Your task to perform on an android device: turn pop-ups on in chrome Image 0: 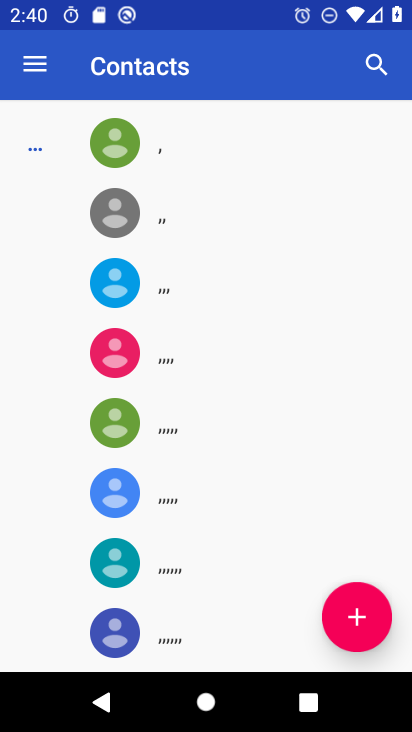
Step 0: drag from (240, 631) to (255, 452)
Your task to perform on an android device: turn pop-ups on in chrome Image 1: 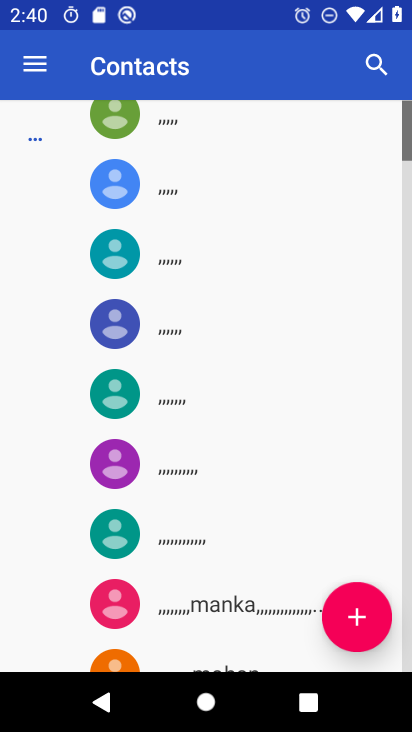
Step 1: press home button
Your task to perform on an android device: turn pop-ups on in chrome Image 2: 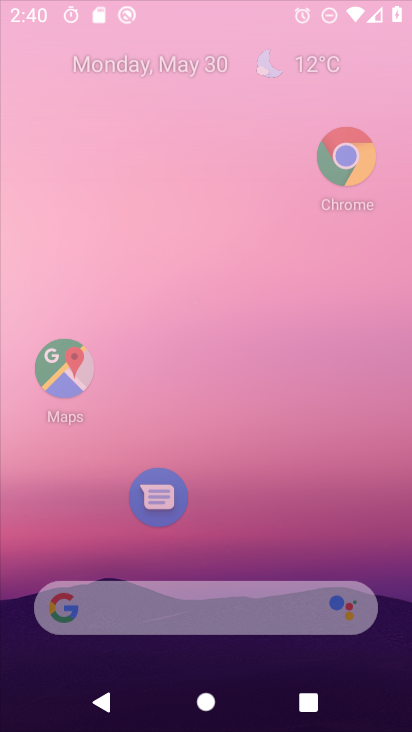
Step 2: drag from (226, 534) to (235, 334)
Your task to perform on an android device: turn pop-ups on in chrome Image 3: 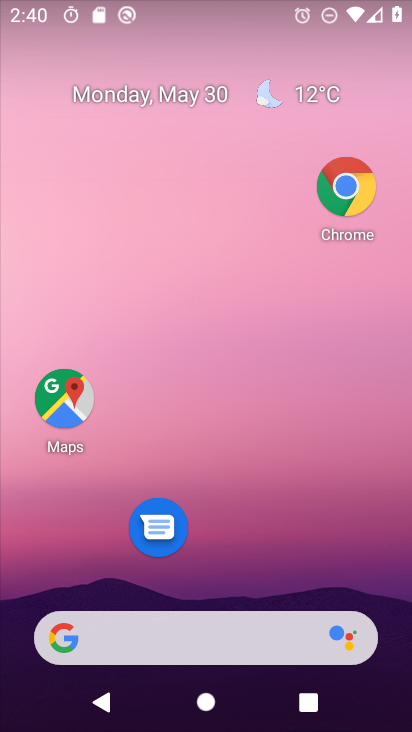
Step 3: click (353, 186)
Your task to perform on an android device: turn pop-ups on in chrome Image 4: 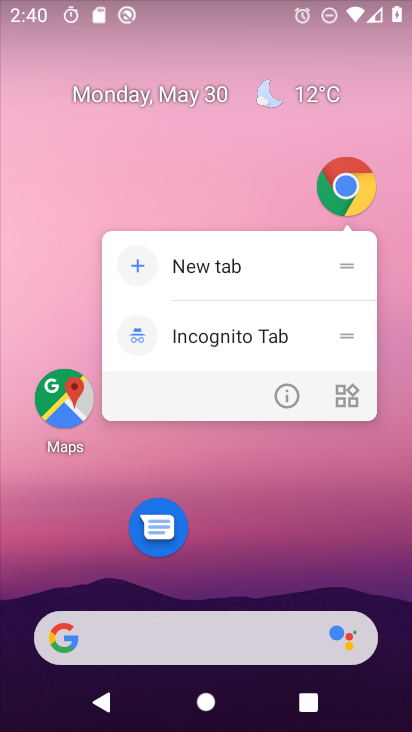
Step 4: click (287, 381)
Your task to perform on an android device: turn pop-ups on in chrome Image 5: 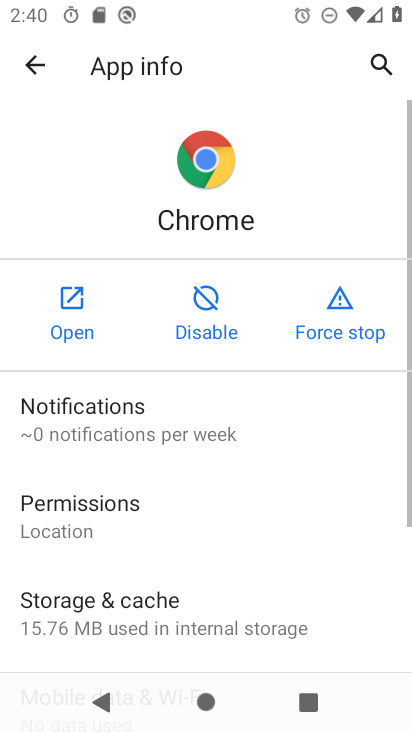
Step 5: click (47, 287)
Your task to perform on an android device: turn pop-ups on in chrome Image 6: 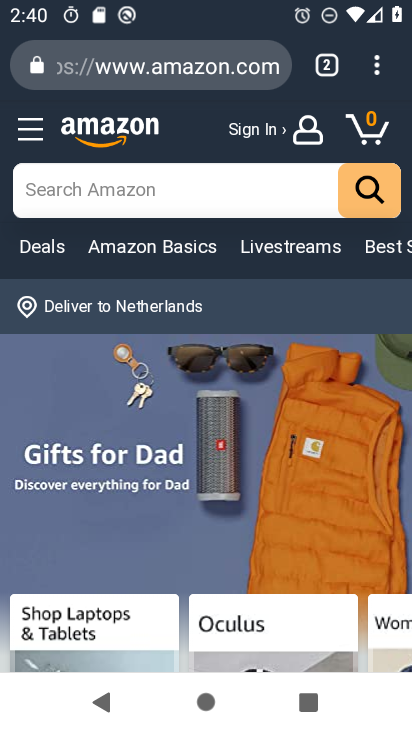
Step 6: drag from (366, 52) to (220, 592)
Your task to perform on an android device: turn pop-ups on in chrome Image 7: 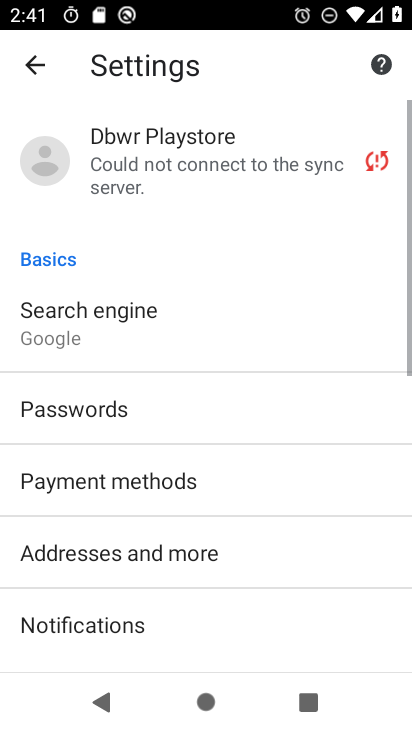
Step 7: drag from (263, 484) to (309, 84)
Your task to perform on an android device: turn pop-ups on in chrome Image 8: 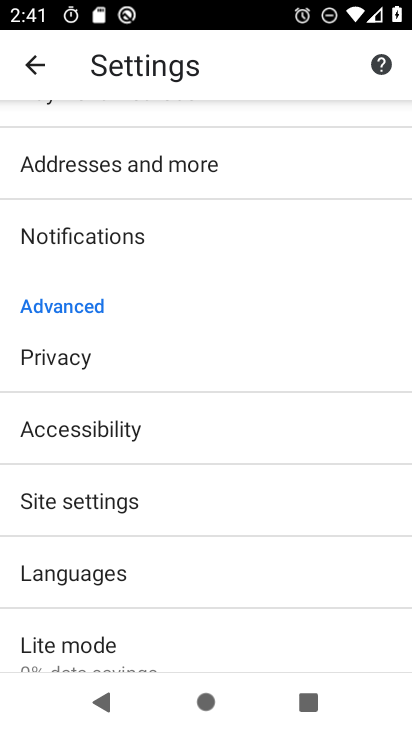
Step 8: click (128, 502)
Your task to perform on an android device: turn pop-ups on in chrome Image 9: 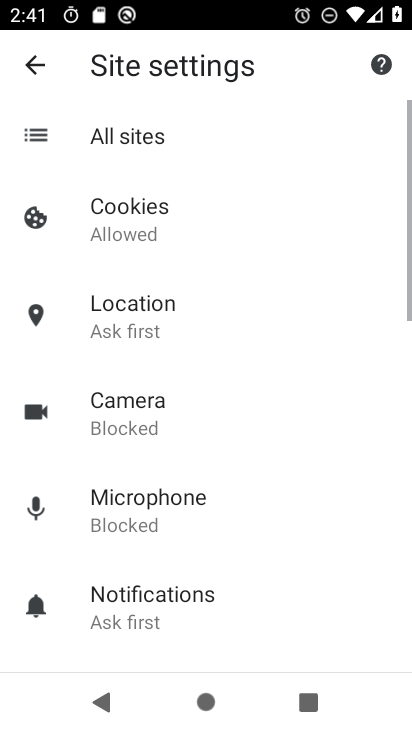
Step 9: drag from (194, 517) to (282, 207)
Your task to perform on an android device: turn pop-ups on in chrome Image 10: 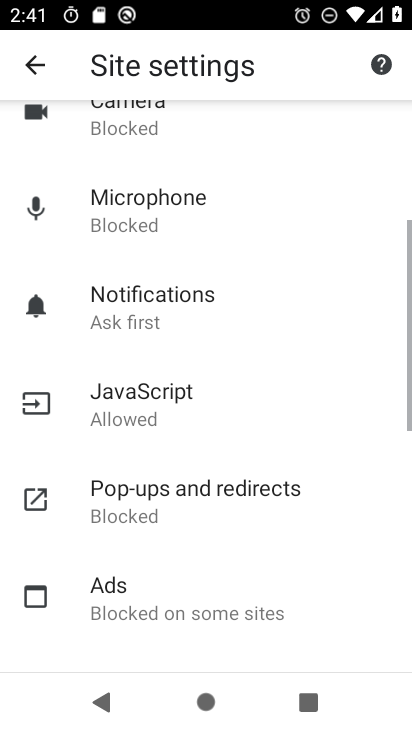
Step 10: click (192, 499)
Your task to perform on an android device: turn pop-ups on in chrome Image 11: 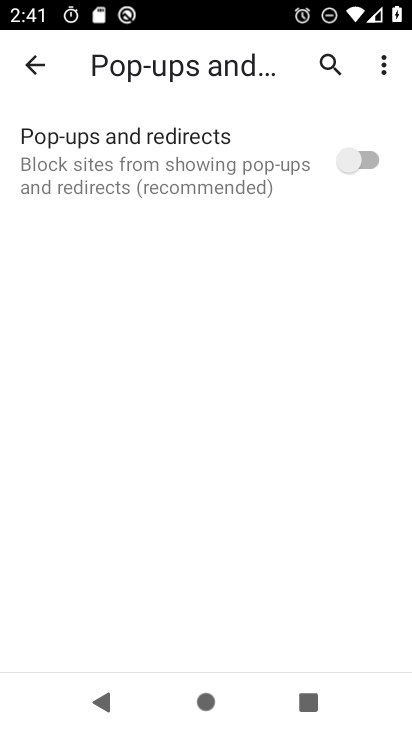
Step 11: click (304, 163)
Your task to perform on an android device: turn pop-ups on in chrome Image 12: 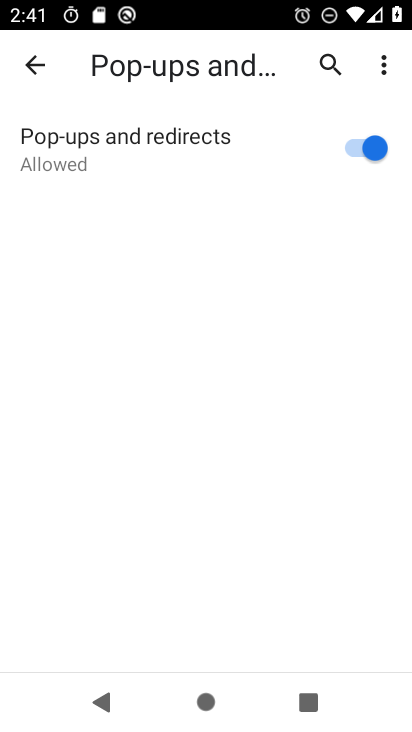
Step 12: task complete